Your task to perform on an android device: open a new tab in the chrome app Image 0: 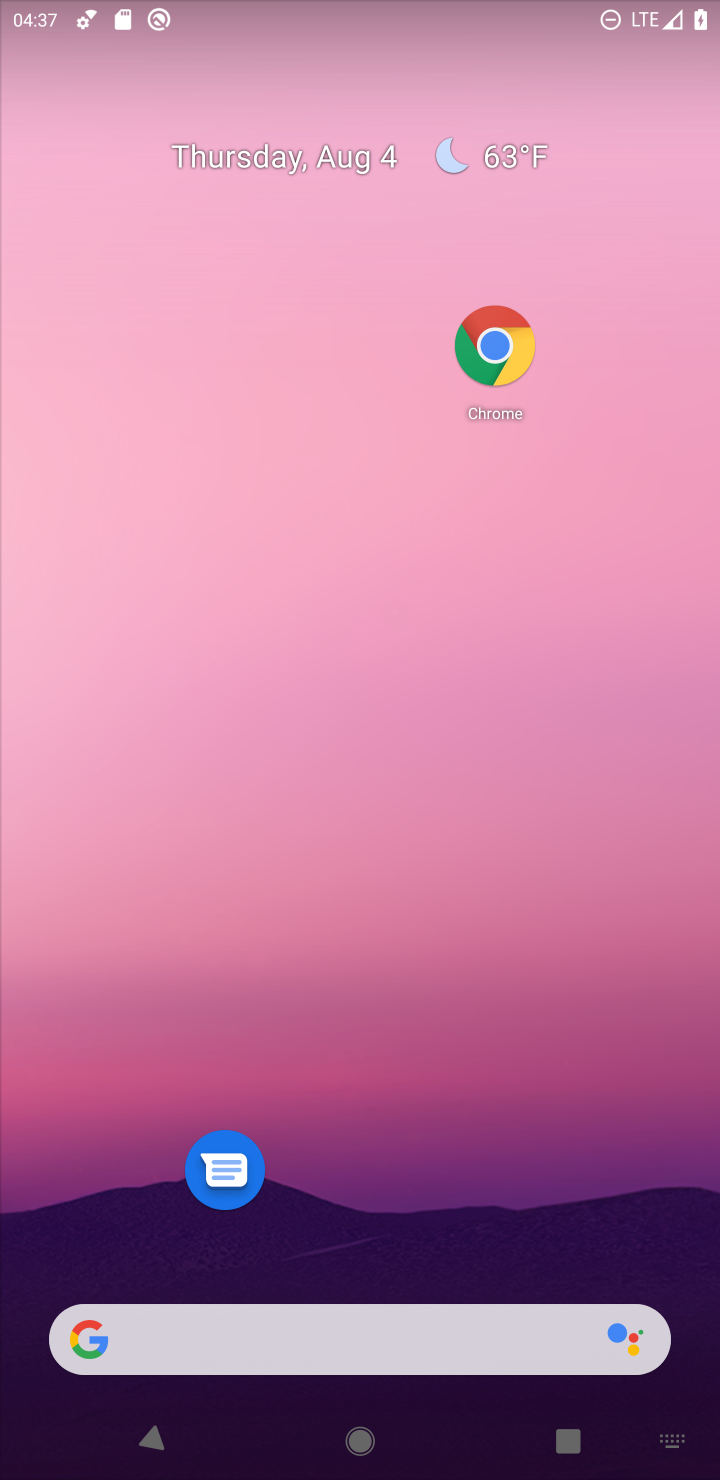
Step 0: drag from (656, 1238) to (644, 160)
Your task to perform on an android device: open a new tab in the chrome app Image 1: 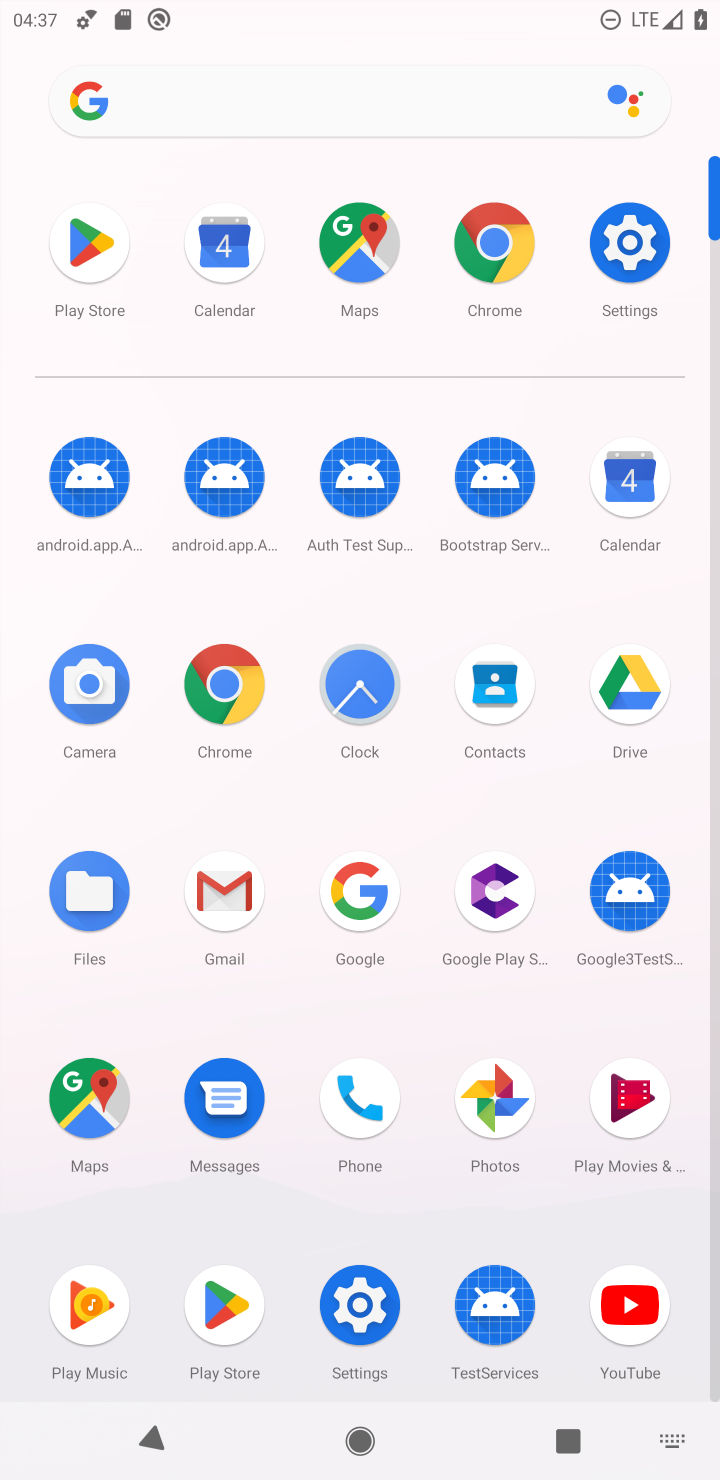
Step 1: click (494, 244)
Your task to perform on an android device: open a new tab in the chrome app Image 2: 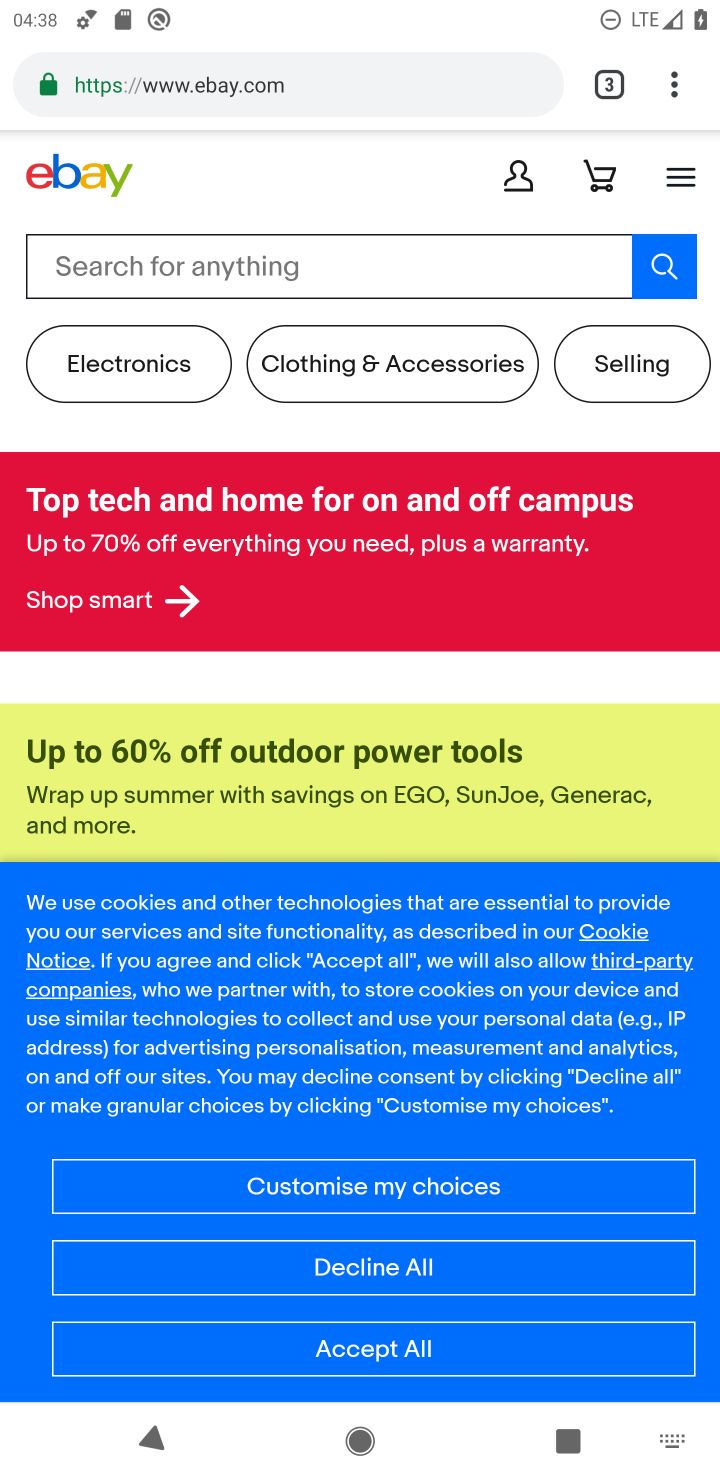
Step 2: click (679, 82)
Your task to perform on an android device: open a new tab in the chrome app Image 3: 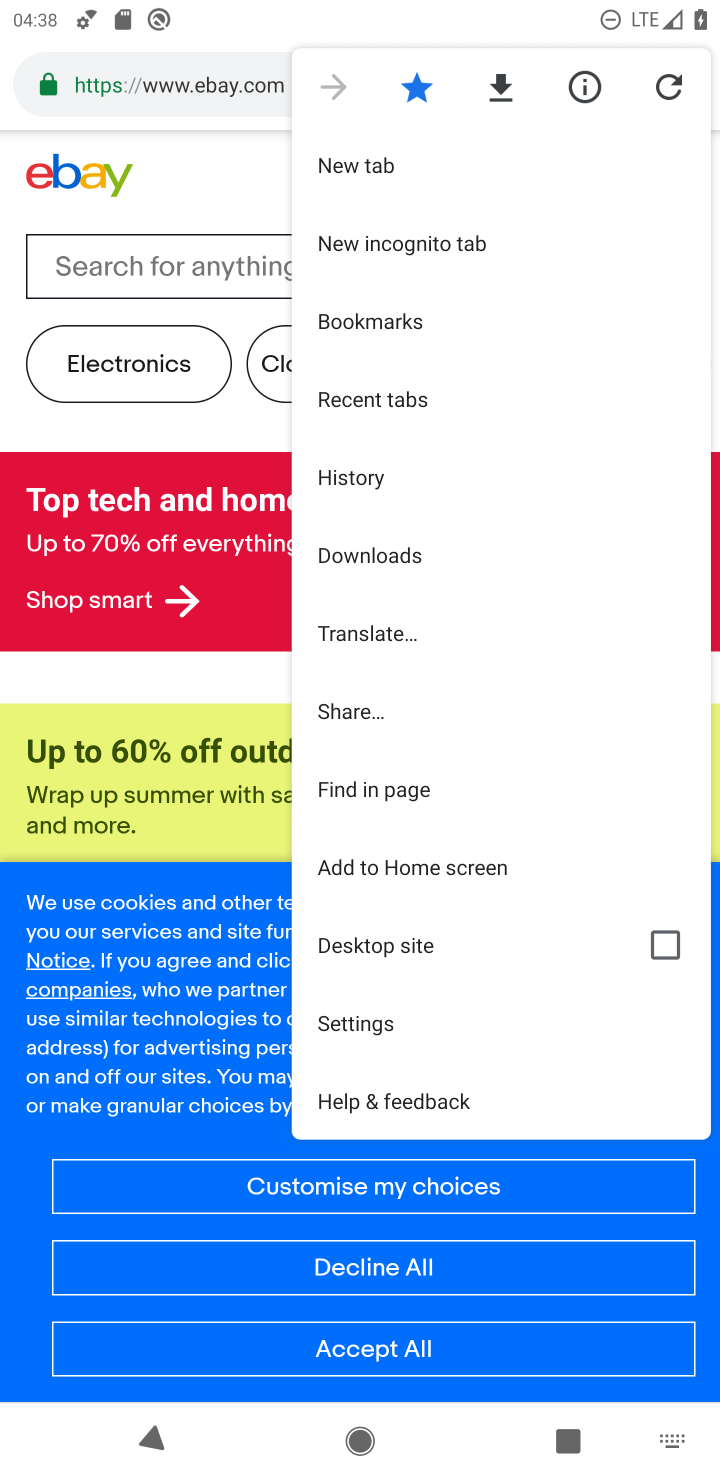
Step 3: click (473, 176)
Your task to perform on an android device: open a new tab in the chrome app Image 4: 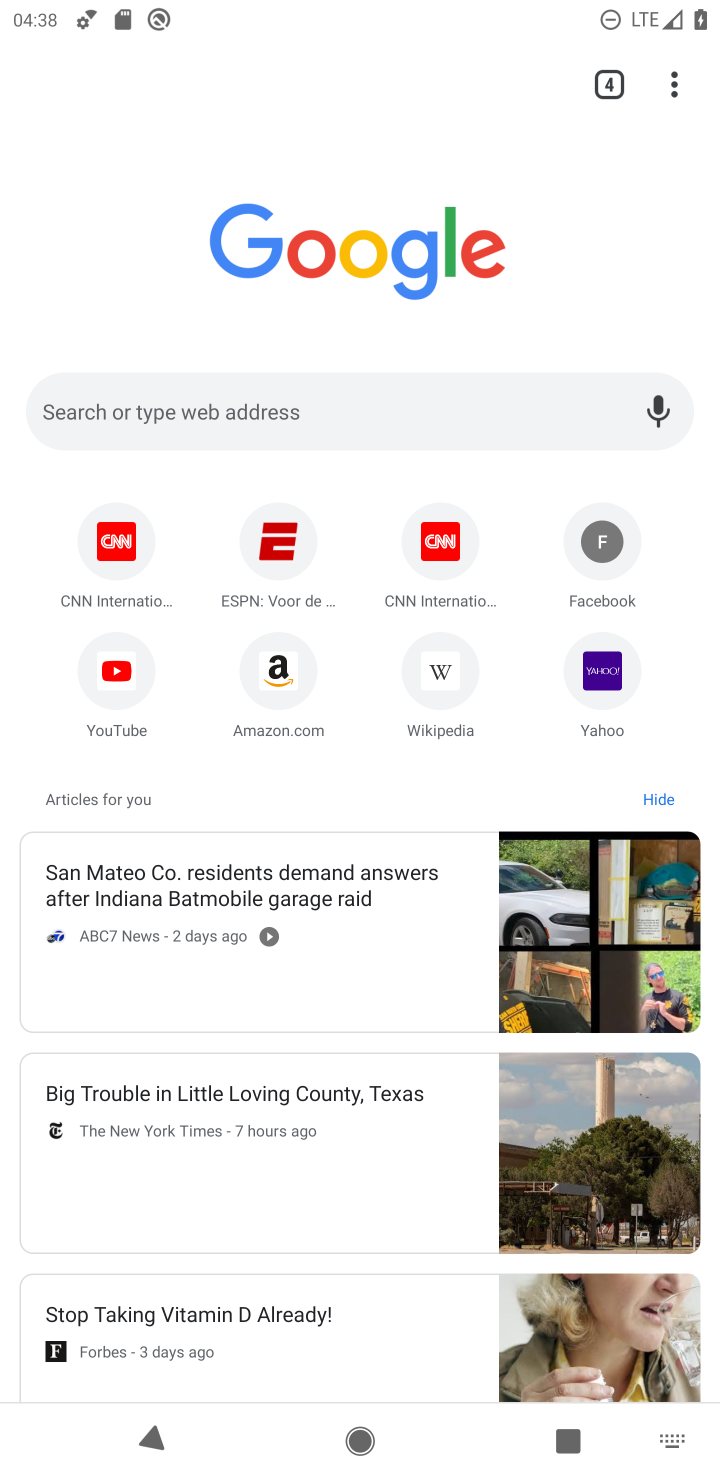
Step 4: task complete